Your task to perform on an android device: Search for sushi restaurants on Maps Image 0: 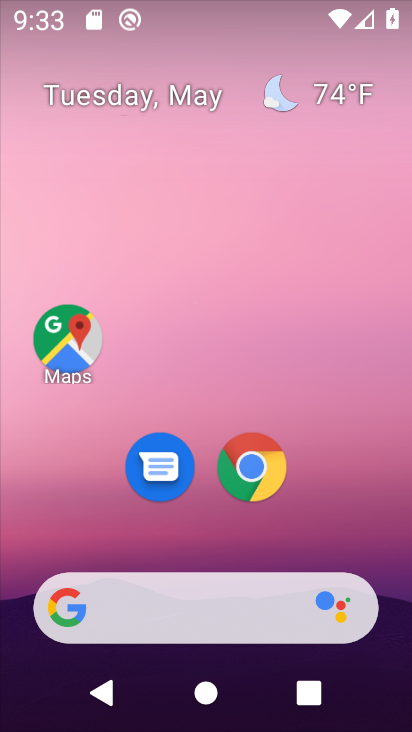
Step 0: drag from (339, 535) to (266, 129)
Your task to perform on an android device: Search for sushi restaurants on Maps Image 1: 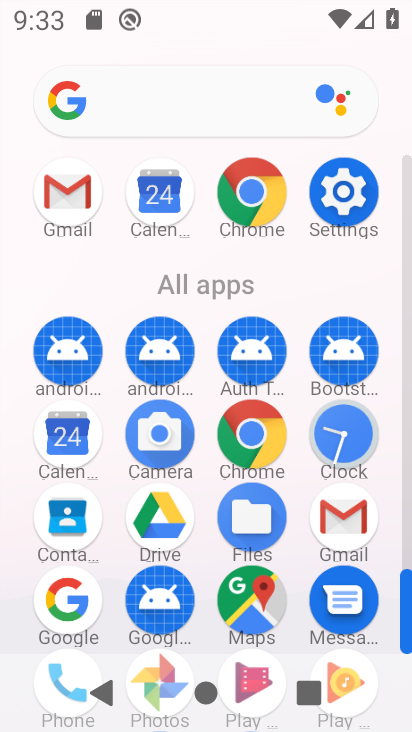
Step 1: click (240, 615)
Your task to perform on an android device: Search for sushi restaurants on Maps Image 2: 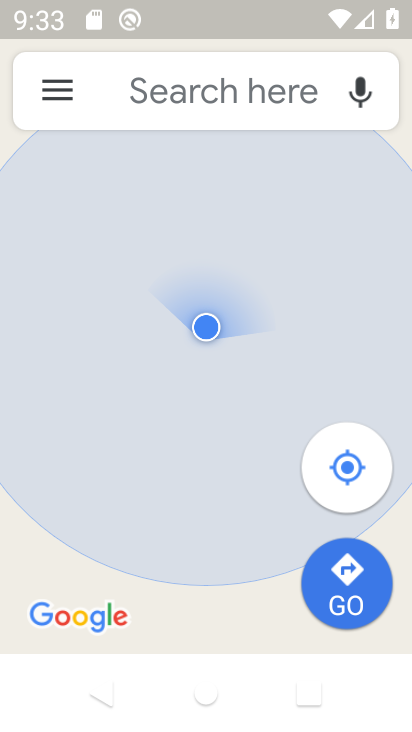
Step 2: click (194, 97)
Your task to perform on an android device: Search for sushi restaurants on Maps Image 3: 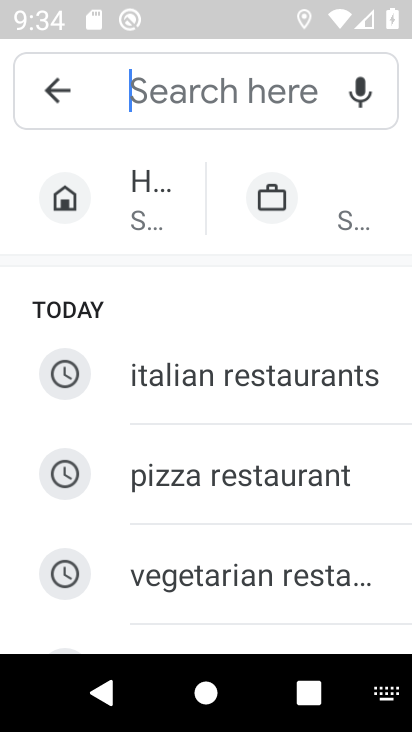
Step 3: type "sushi restaurants "
Your task to perform on an android device: Search for sushi restaurants on Maps Image 4: 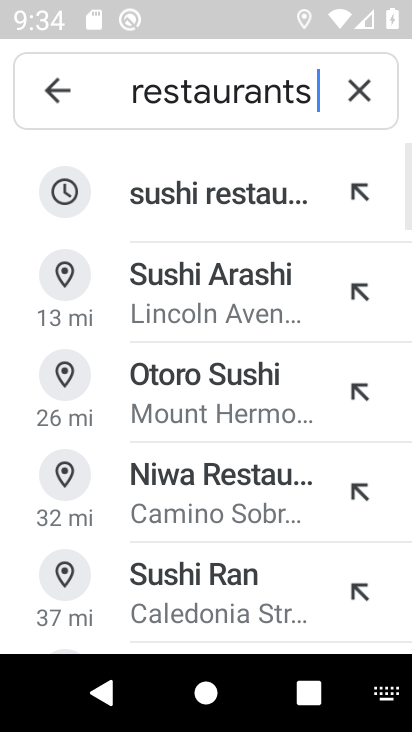
Step 4: click (228, 202)
Your task to perform on an android device: Search for sushi restaurants on Maps Image 5: 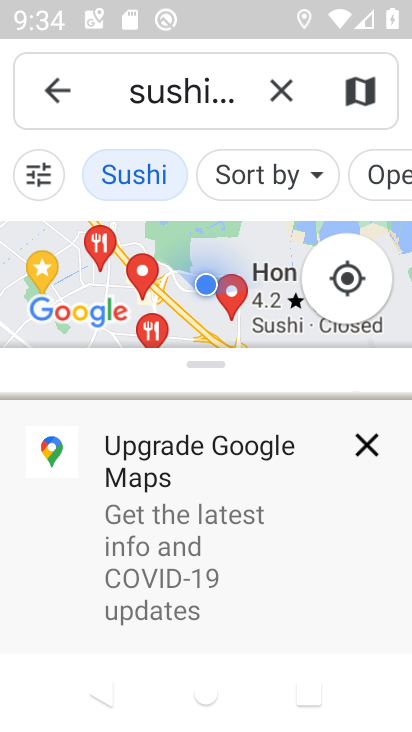
Step 5: task complete